Your task to perform on an android device: add a contact in the contacts app Image 0: 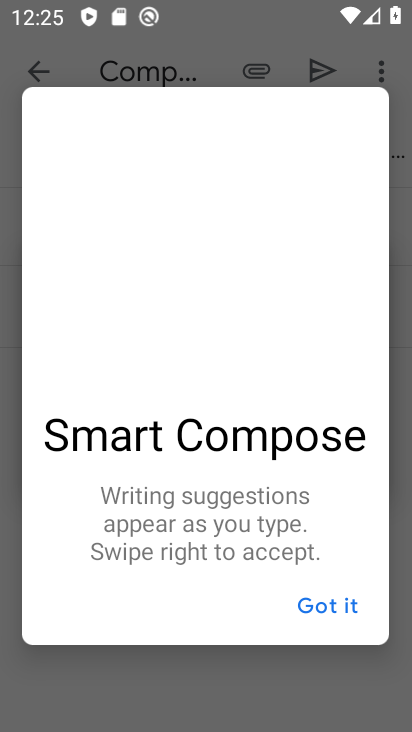
Step 0: task complete